Your task to perform on an android device: Open Youtube and go to "Your channel" Image 0: 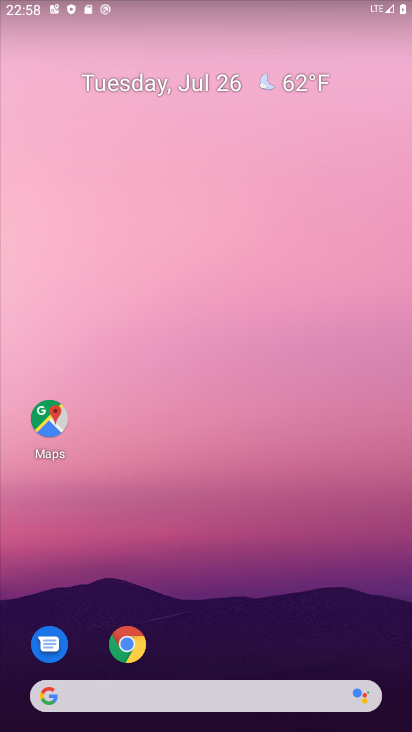
Step 0: drag from (213, 657) to (257, 2)
Your task to perform on an android device: Open Youtube and go to "Your channel" Image 1: 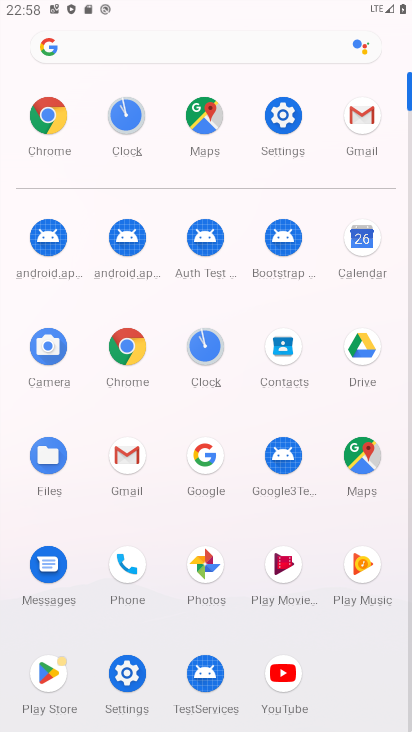
Step 1: click (284, 680)
Your task to perform on an android device: Open Youtube and go to "Your channel" Image 2: 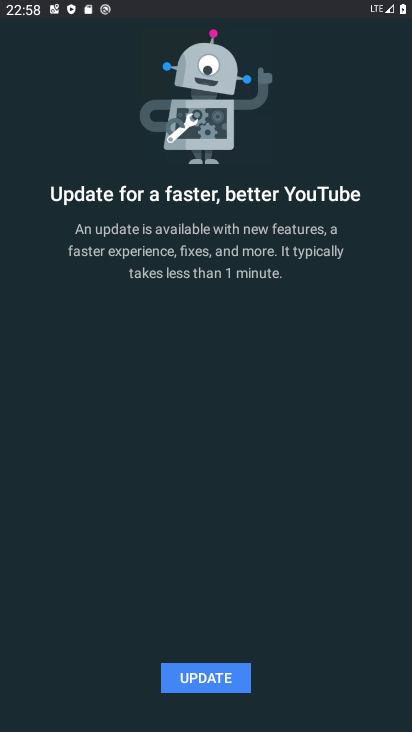
Step 2: click (193, 675)
Your task to perform on an android device: Open Youtube and go to "Your channel" Image 3: 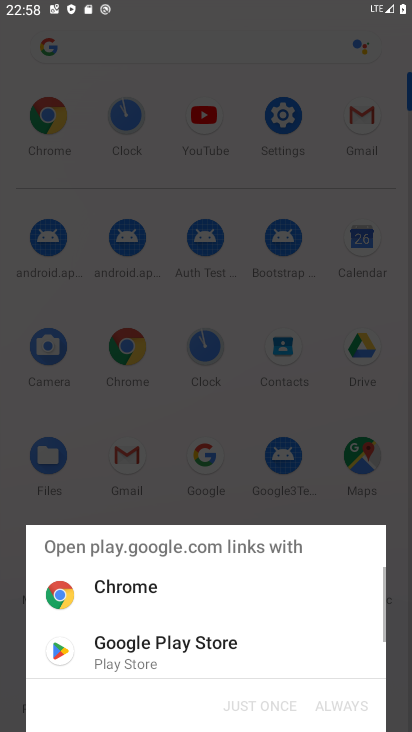
Step 3: click (149, 650)
Your task to perform on an android device: Open Youtube and go to "Your channel" Image 4: 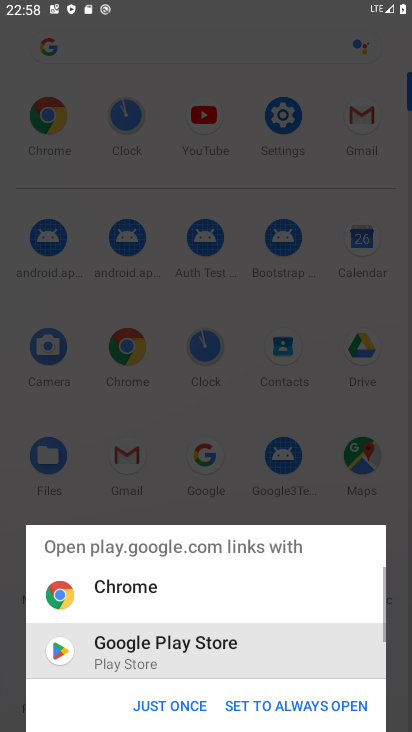
Step 4: click (151, 702)
Your task to perform on an android device: Open Youtube and go to "Your channel" Image 5: 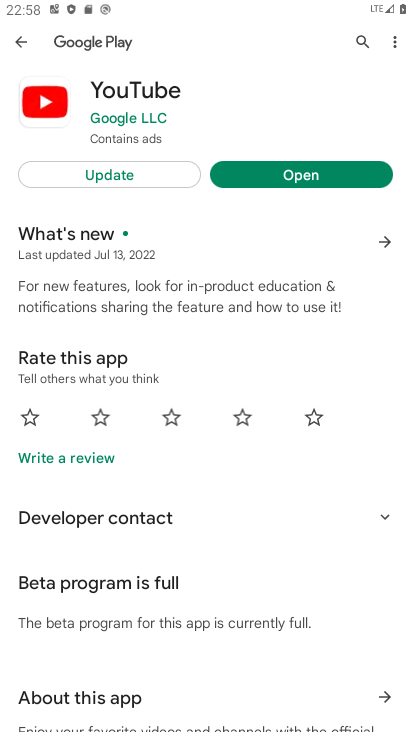
Step 5: click (104, 180)
Your task to perform on an android device: Open Youtube and go to "Your channel" Image 6: 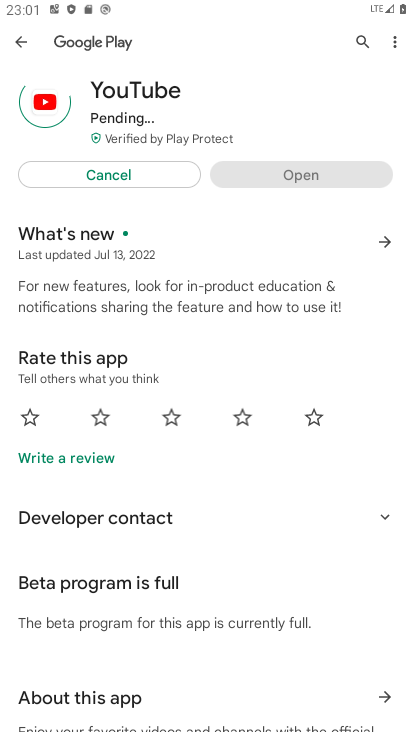
Step 6: click (118, 175)
Your task to perform on an android device: Open Youtube and go to "Your channel" Image 7: 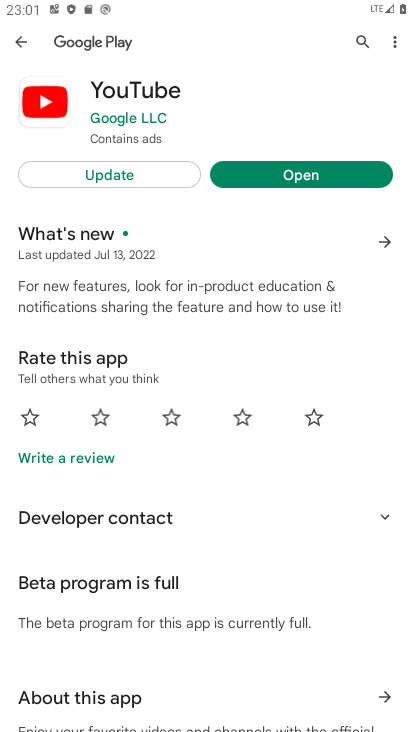
Step 7: click (118, 175)
Your task to perform on an android device: Open Youtube and go to "Your channel" Image 8: 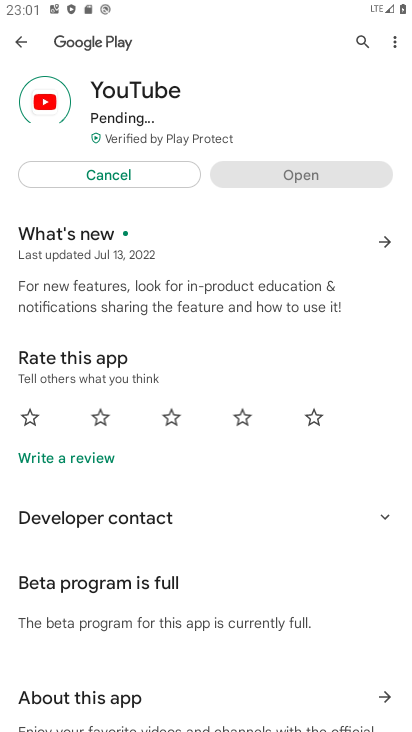
Step 8: task complete